Your task to perform on an android device: Open Google Chrome and click the shortcut for Amazon.com Image 0: 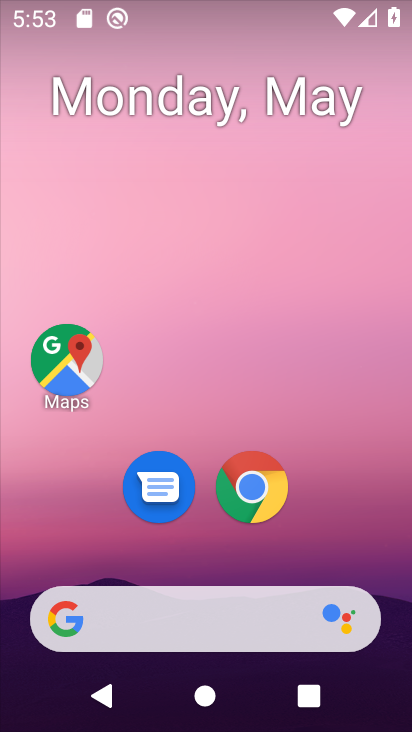
Step 0: click (245, 486)
Your task to perform on an android device: Open Google Chrome and click the shortcut for Amazon.com Image 1: 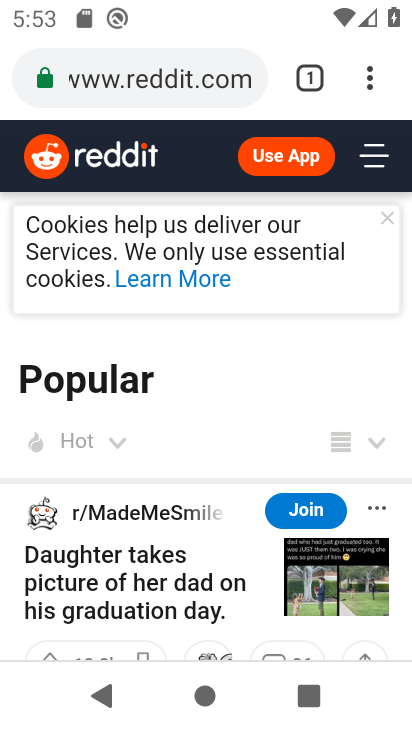
Step 1: click (309, 76)
Your task to perform on an android device: Open Google Chrome and click the shortcut for Amazon.com Image 2: 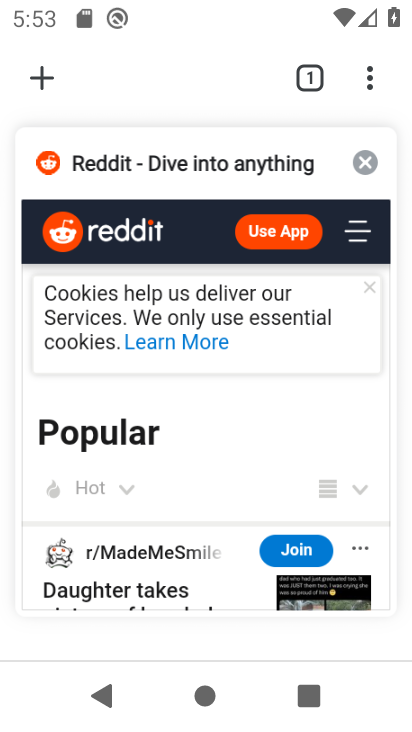
Step 2: click (360, 161)
Your task to perform on an android device: Open Google Chrome and click the shortcut for Amazon.com Image 3: 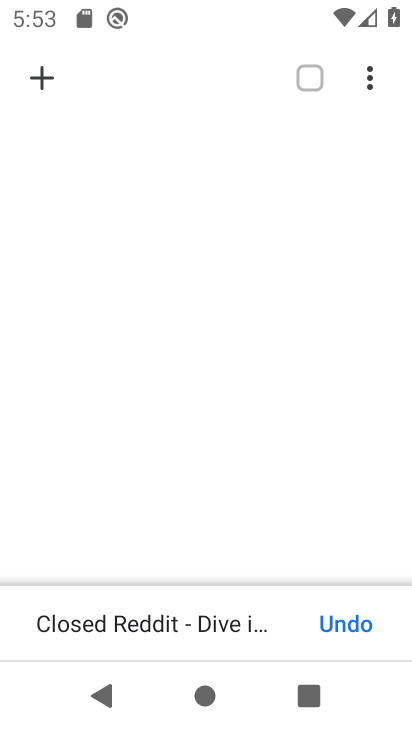
Step 3: click (45, 77)
Your task to perform on an android device: Open Google Chrome and click the shortcut for Amazon.com Image 4: 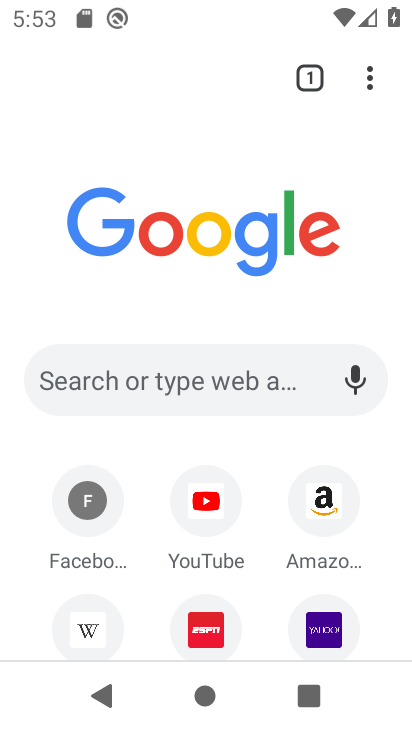
Step 4: click (319, 499)
Your task to perform on an android device: Open Google Chrome and click the shortcut for Amazon.com Image 5: 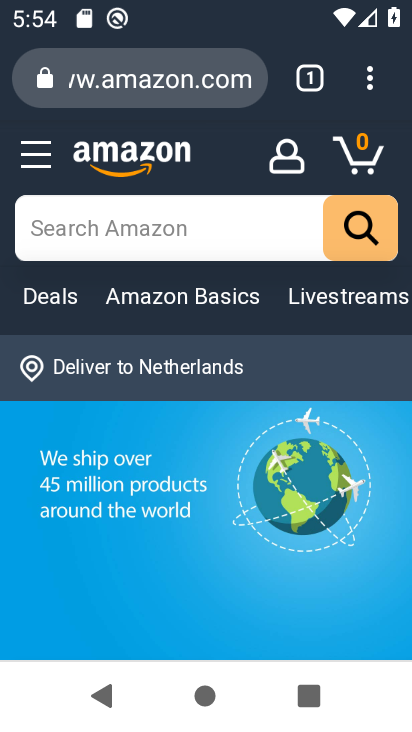
Step 5: task complete